Your task to perform on an android device: Do I have any events tomorrow? Image 0: 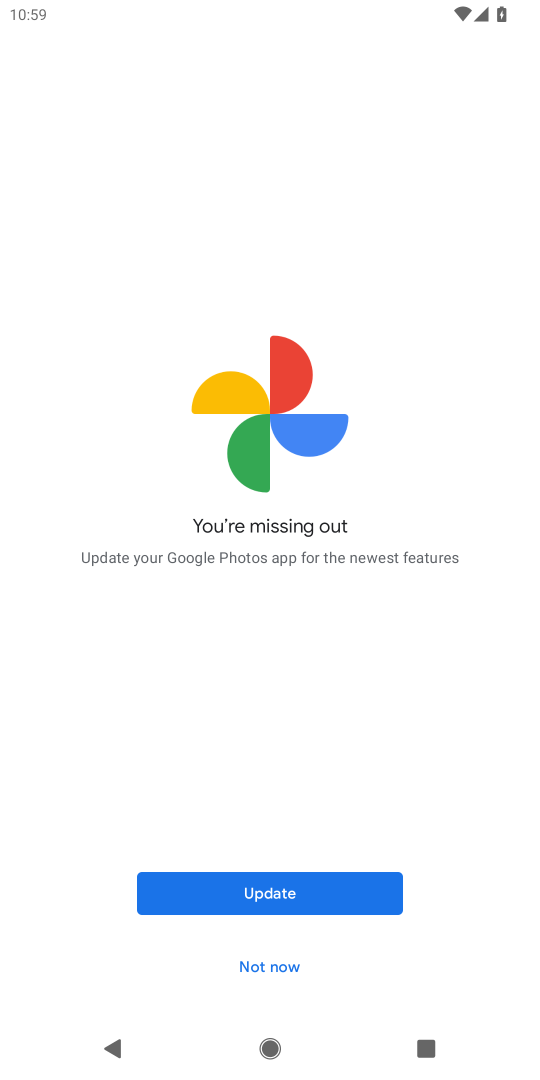
Step 0: press home button
Your task to perform on an android device: Do I have any events tomorrow? Image 1: 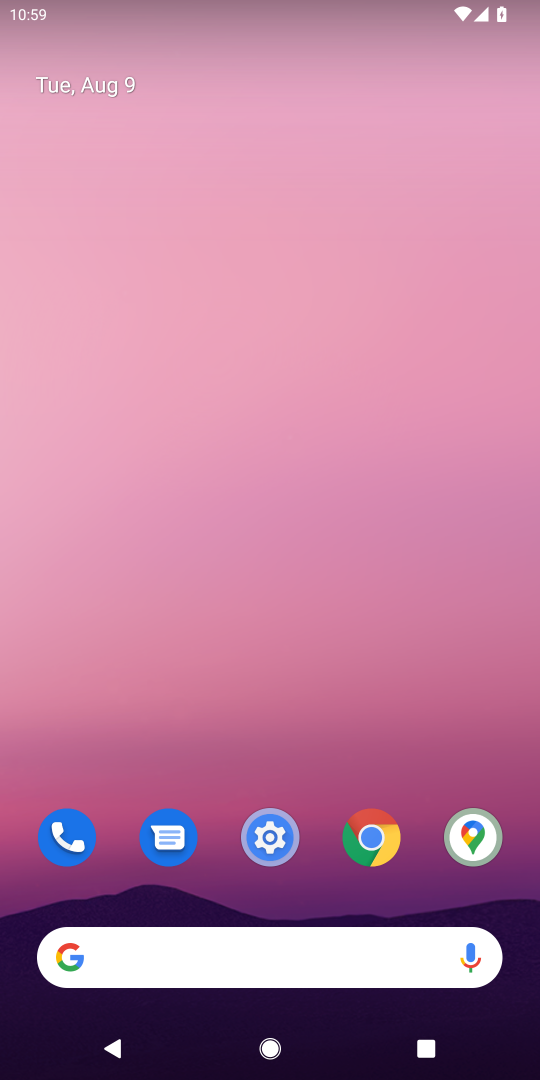
Step 1: drag from (297, 917) to (259, 143)
Your task to perform on an android device: Do I have any events tomorrow? Image 2: 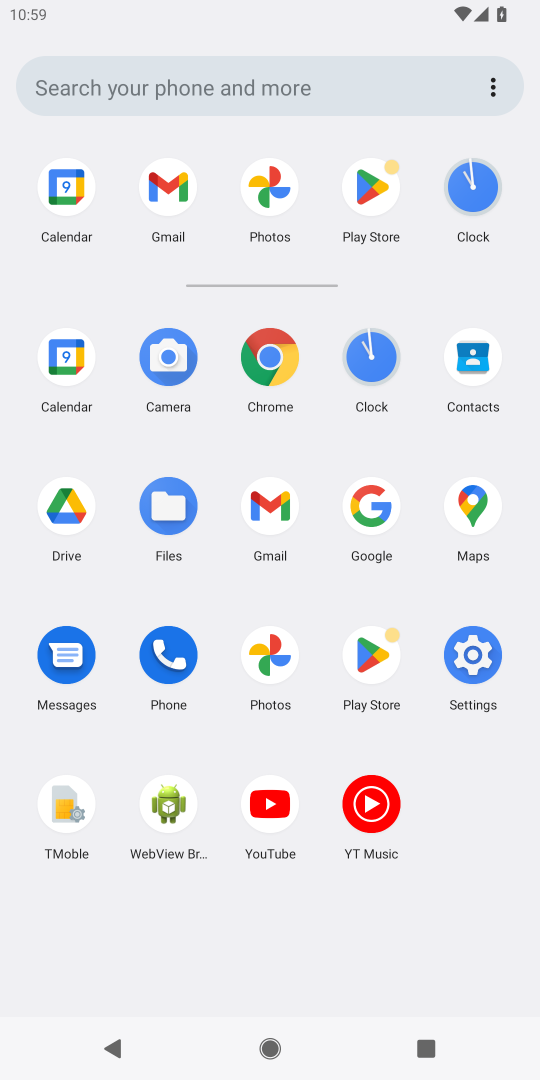
Step 2: click (72, 363)
Your task to perform on an android device: Do I have any events tomorrow? Image 3: 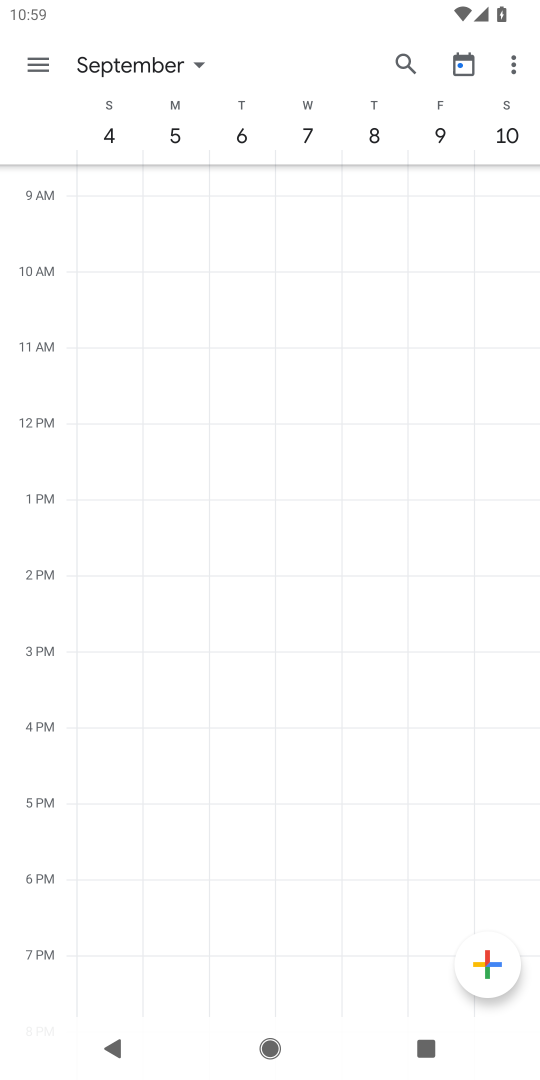
Step 3: click (201, 66)
Your task to perform on an android device: Do I have any events tomorrow? Image 4: 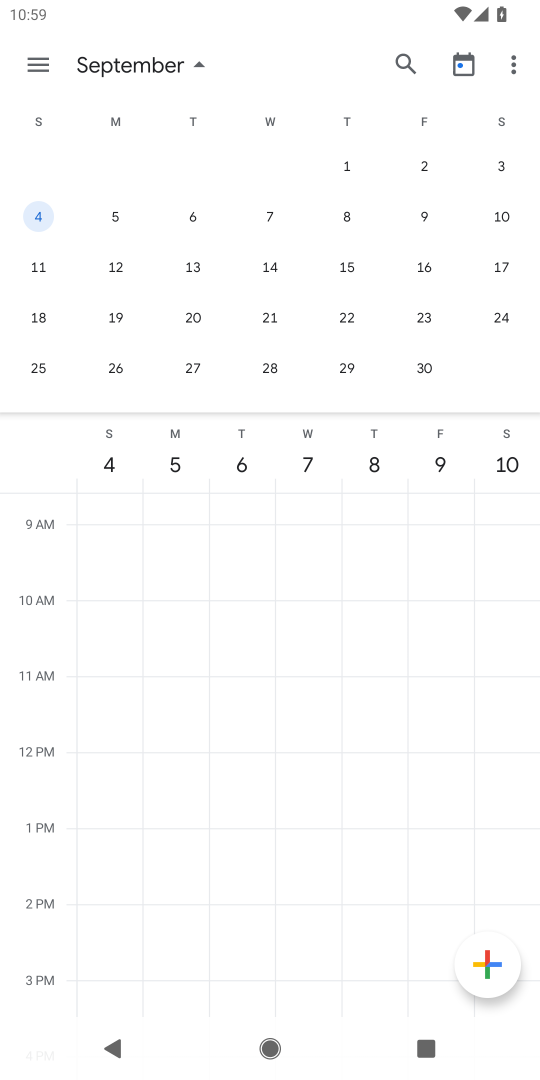
Step 4: drag from (27, 268) to (531, 269)
Your task to perform on an android device: Do I have any events tomorrow? Image 5: 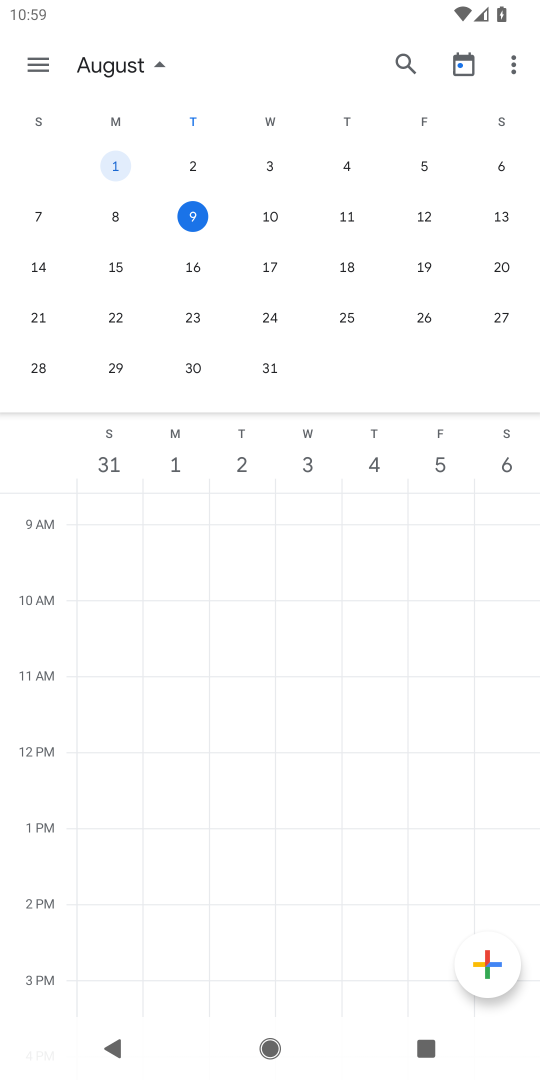
Step 5: click (196, 218)
Your task to perform on an android device: Do I have any events tomorrow? Image 6: 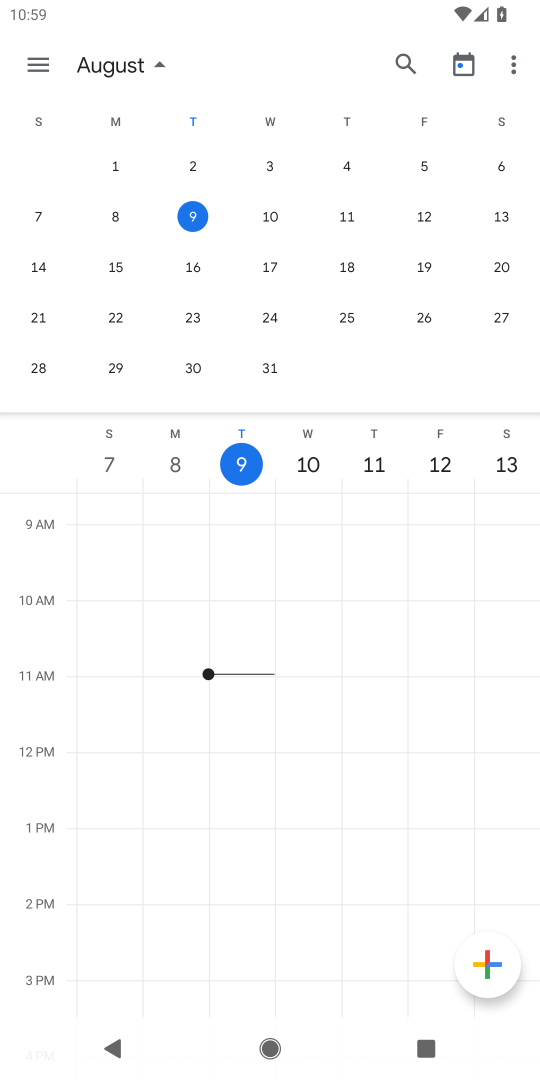
Step 6: click (241, 458)
Your task to perform on an android device: Do I have any events tomorrow? Image 7: 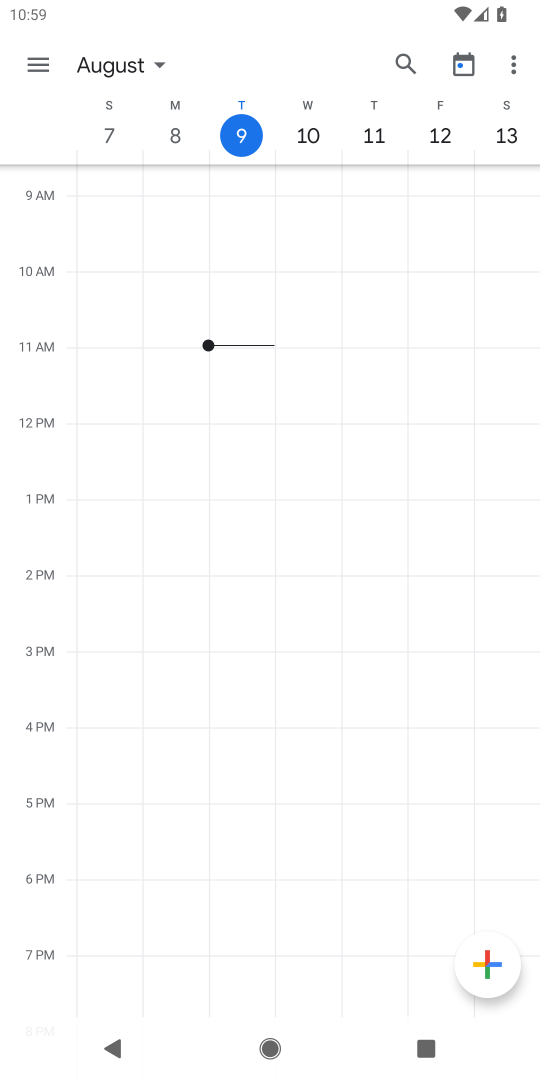
Step 7: task complete